Your task to perform on an android device: Open the stopwatch Image 0: 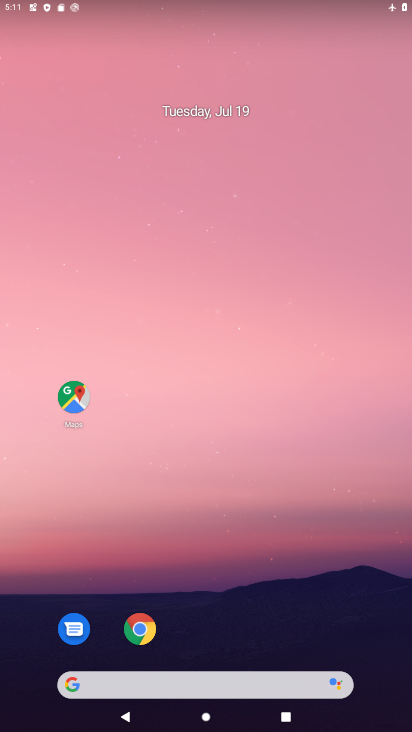
Step 0: press home button
Your task to perform on an android device: Open the stopwatch Image 1: 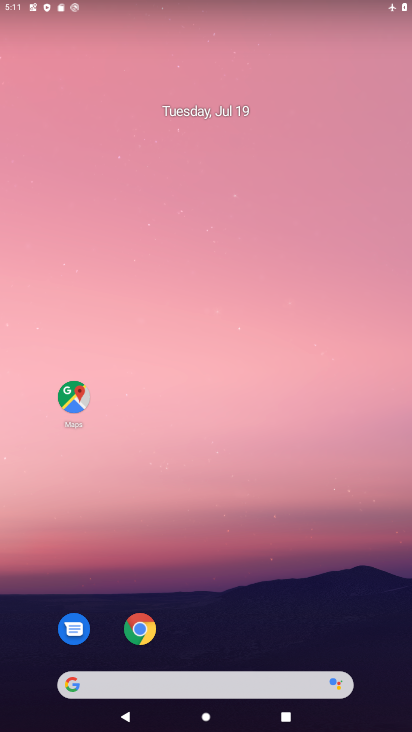
Step 1: drag from (230, 635) to (130, 1)
Your task to perform on an android device: Open the stopwatch Image 2: 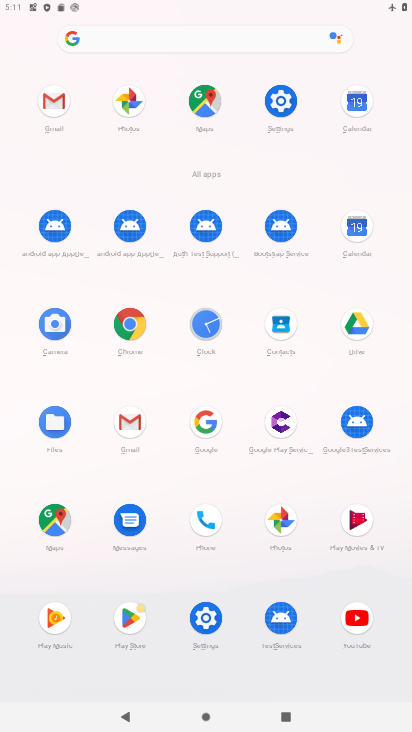
Step 2: click (201, 331)
Your task to perform on an android device: Open the stopwatch Image 3: 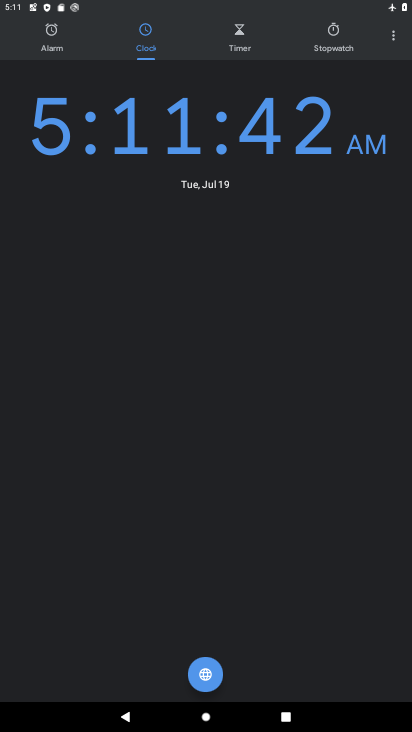
Step 3: click (337, 34)
Your task to perform on an android device: Open the stopwatch Image 4: 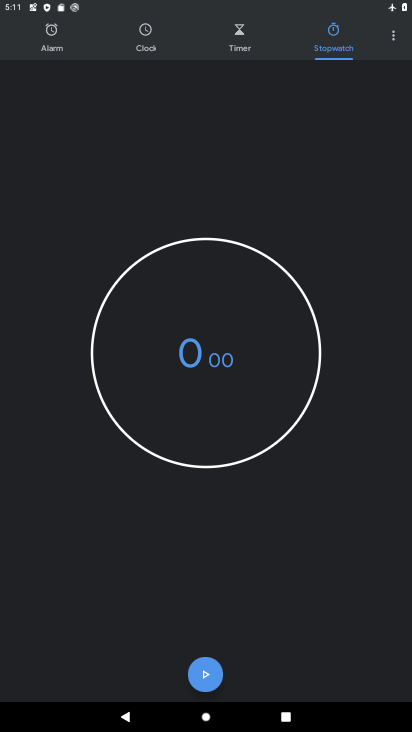
Step 4: task complete